Your task to perform on an android device: Show me productivity apps on the Play Store Image 0: 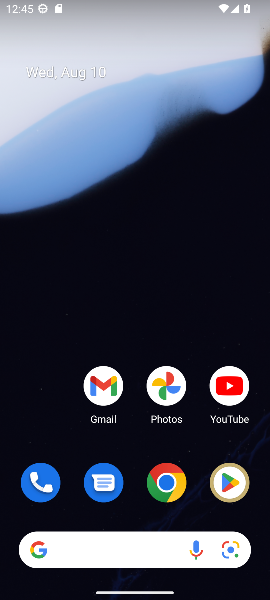
Step 0: click (227, 487)
Your task to perform on an android device: Show me productivity apps on the Play Store Image 1: 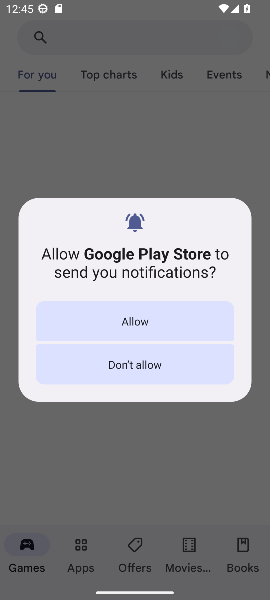
Step 1: click (129, 319)
Your task to perform on an android device: Show me productivity apps on the Play Store Image 2: 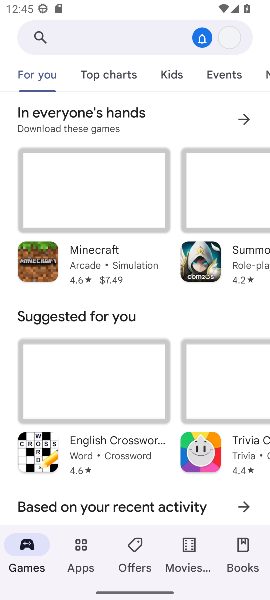
Step 2: task complete